Your task to perform on an android device: turn on wifi Image 0: 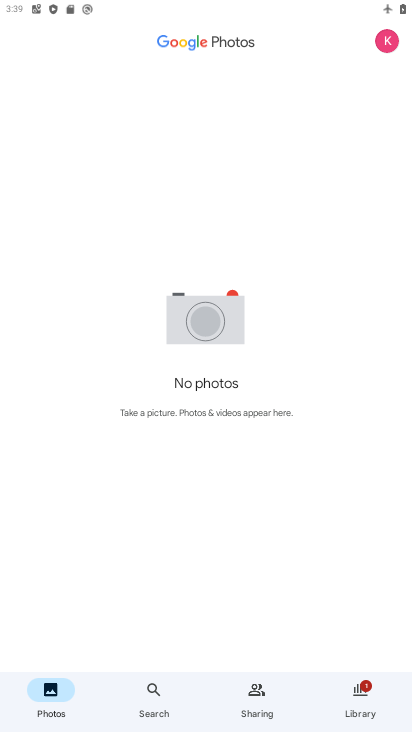
Step 0: press home button
Your task to perform on an android device: turn on wifi Image 1: 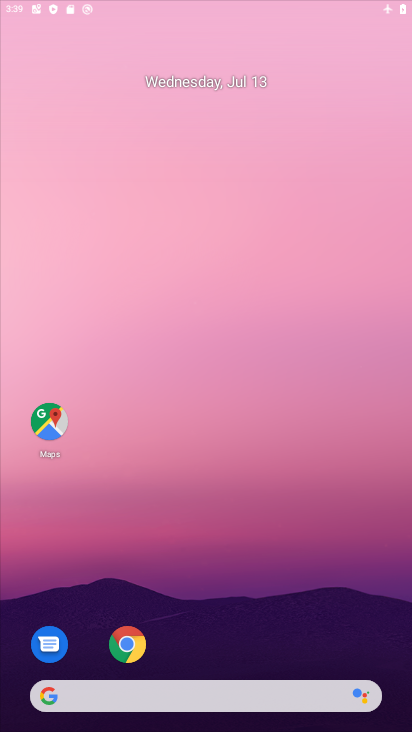
Step 1: drag from (261, 546) to (249, 4)
Your task to perform on an android device: turn on wifi Image 2: 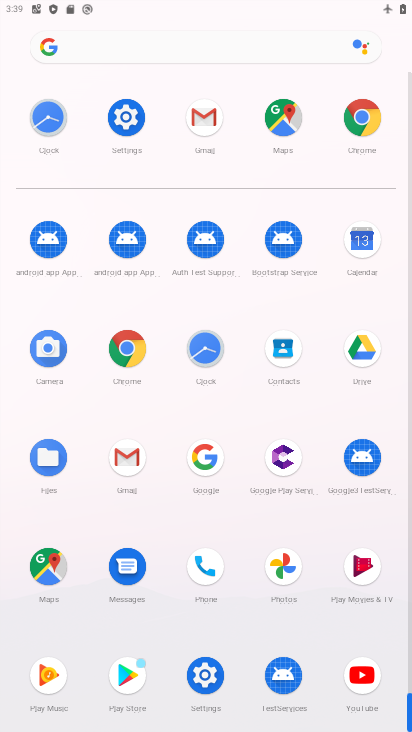
Step 2: click (111, 110)
Your task to perform on an android device: turn on wifi Image 3: 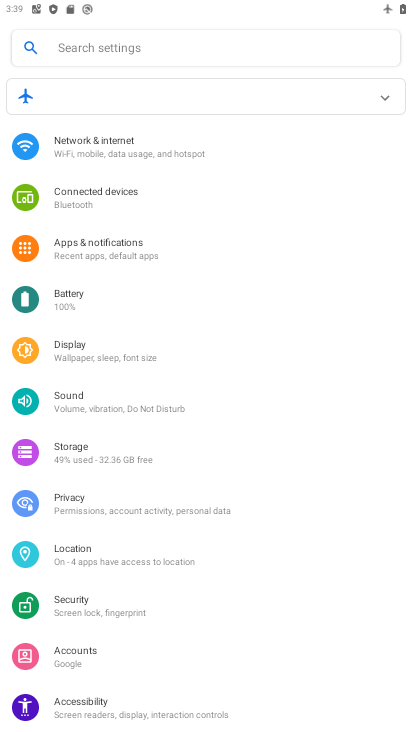
Step 3: click (125, 166)
Your task to perform on an android device: turn on wifi Image 4: 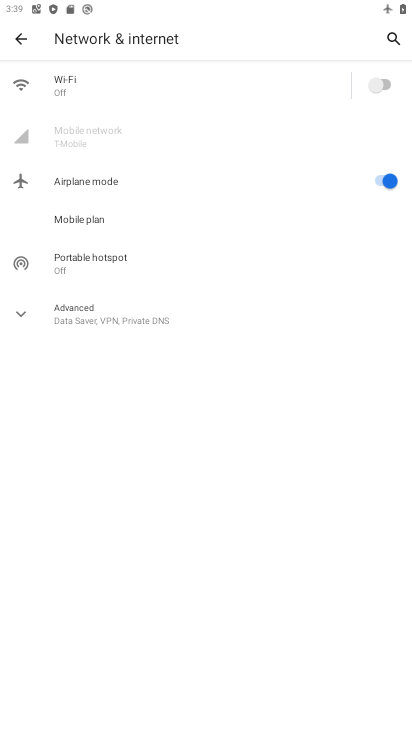
Step 4: click (393, 84)
Your task to perform on an android device: turn on wifi Image 5: 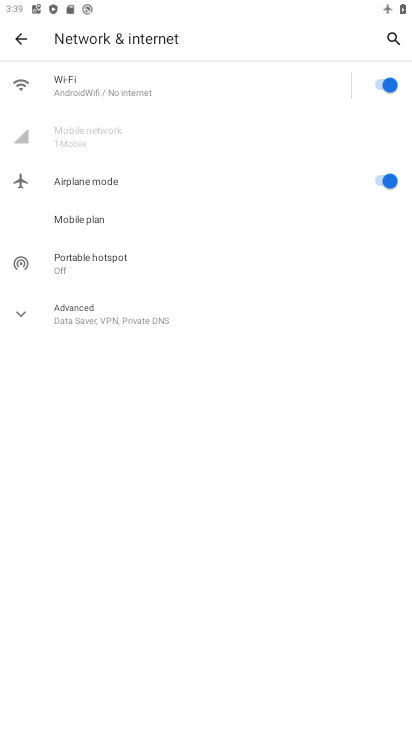
Step 5: task complete